Your task to perform on an android device: stop showing notifications on the lock screen Image 0: 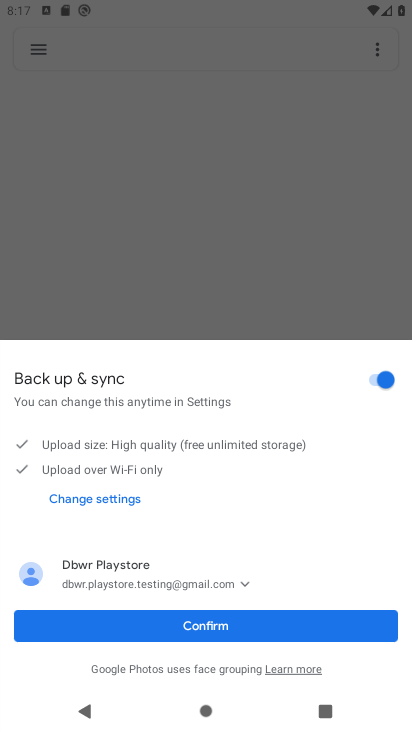
Step 0: click (162, 623)
Your task to perform on an android device: stop showing notifications on the lock screen Image 1: 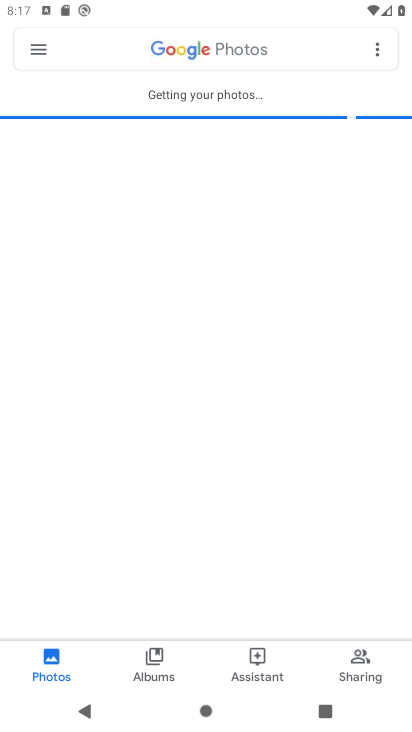
Step 1: press home button
Your task to perform on an android device: stop showing notifications on the lock screen Image 2: 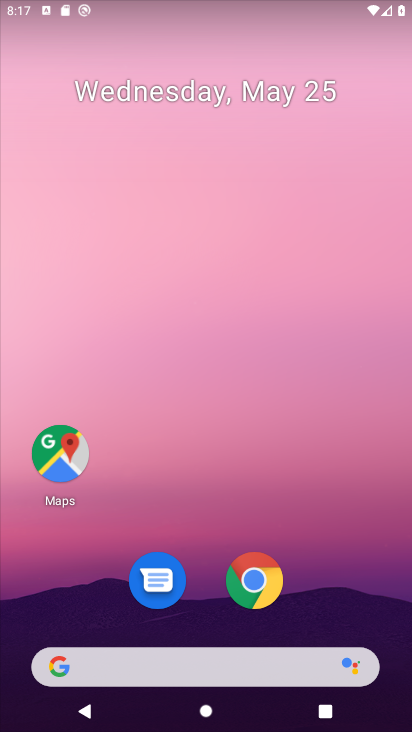
Step 2: drag from (36, 552) to (181, 158)
Your task to perform on an android device: stop showing notifications on the lock screen Image 3: 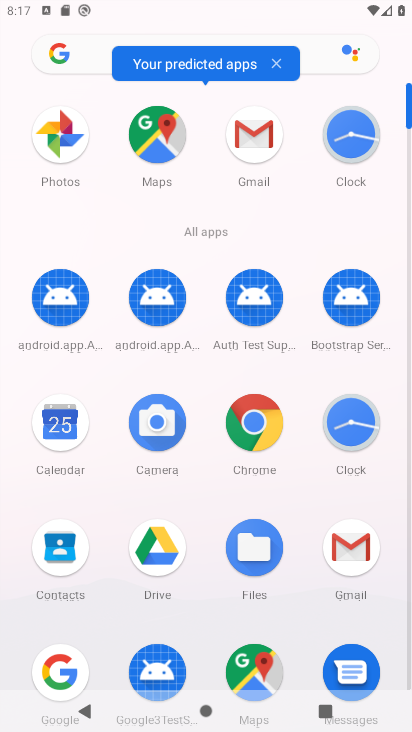
Step 3: drag from (6, 600) to (197, 131)
Your task to perform on an android device: stop showing notifications on the lock screen Image 4: 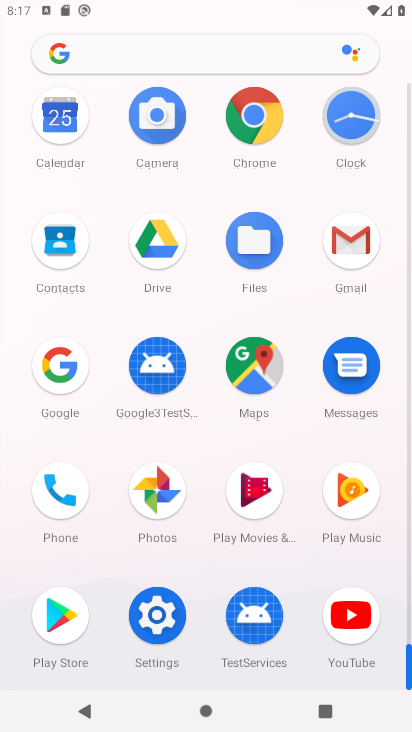
Step 4: click (150, 625)
Your task to perform on an android device: stop showing notifications on the lock screen Image 5: 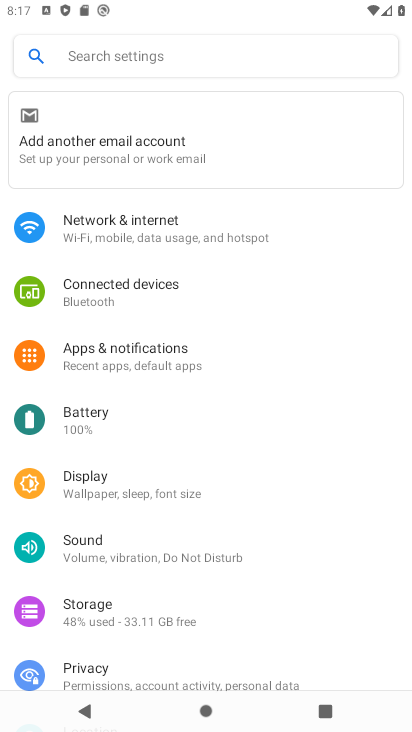
Step 5: click (100, 354)
Your task to perform on an android device: stop showing notifications on the lock screen Image 6: 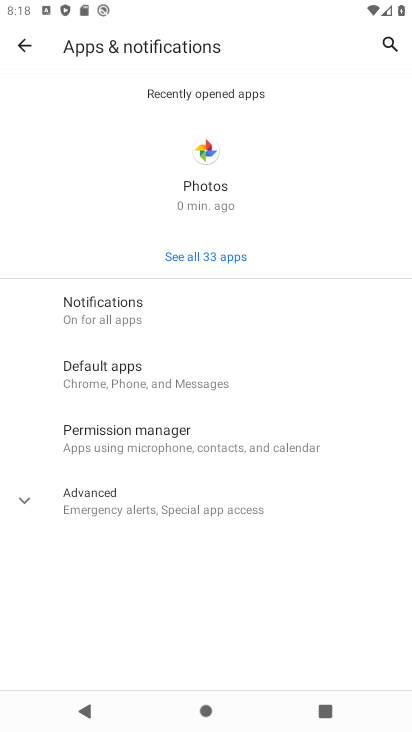
Step 6: click (131, 315)
Your task to perform on an android device: stop showing notifications on the lock screen Image 7: 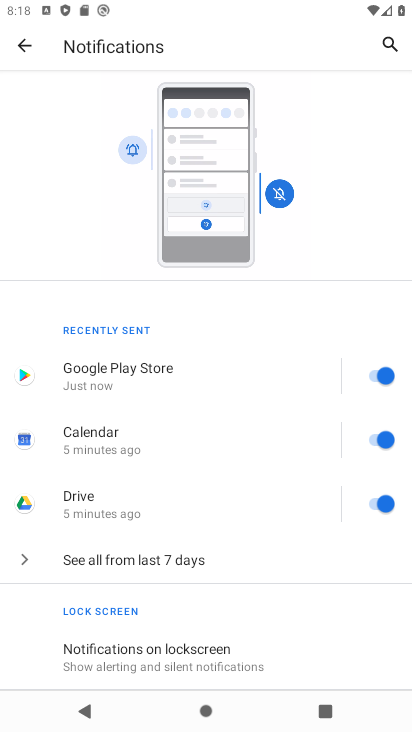
Step 7: click (134, 659)
Your task to perform on an android device: stop showing notifications on the lock screen Image 8: 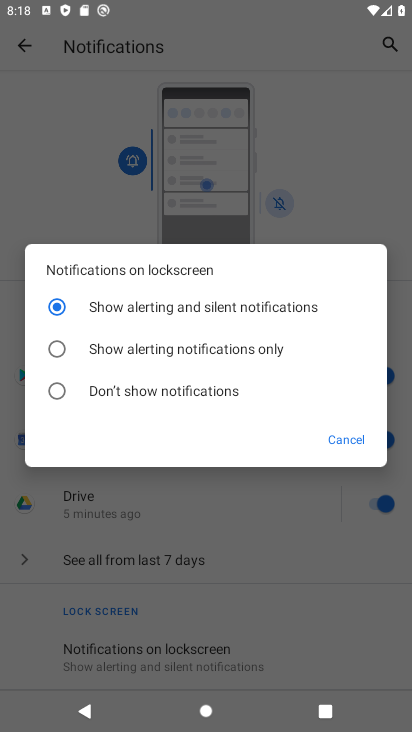
Step 8: click (62, 399)
Your task to perform on an android device: stop showing notifications on the lock screen Image 9: 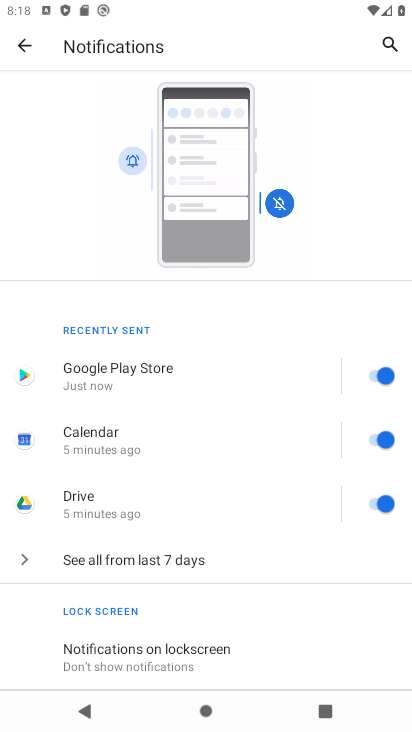
Step 9: task complete